Your task to perform on an android device: check data usage Image 0: 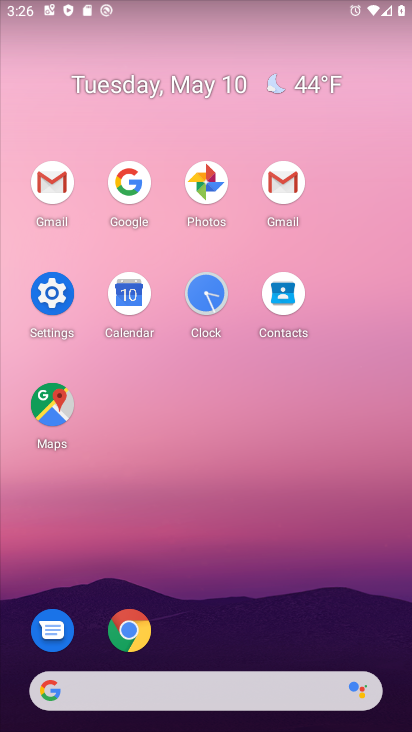
Step 0: click (62, 301)
Your task to perform on an android device: check data usage Image 1: 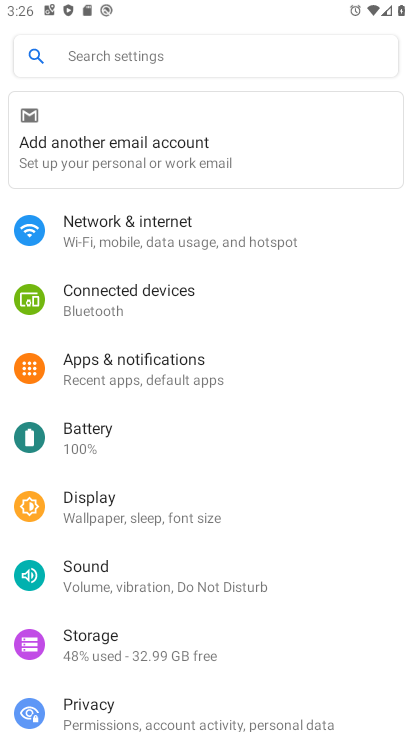
Step 1: click (240, 253)
Your task to perform on an android device: check data usage Image 2: 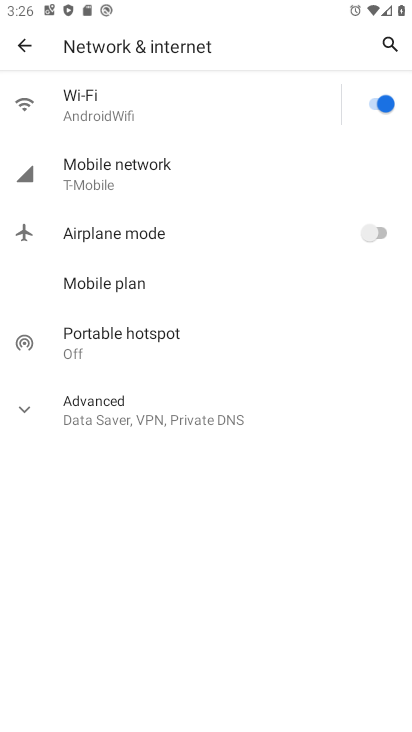
Step 2: click (199, 183)
Your task to perform on an android device: check data usage Image 3: 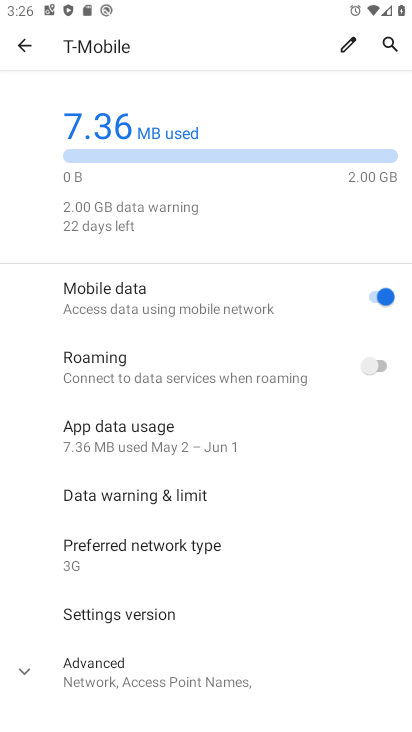
Step 3: task complete